Your task to perform on an android device: turn pop-ups off in chrome Image 0: 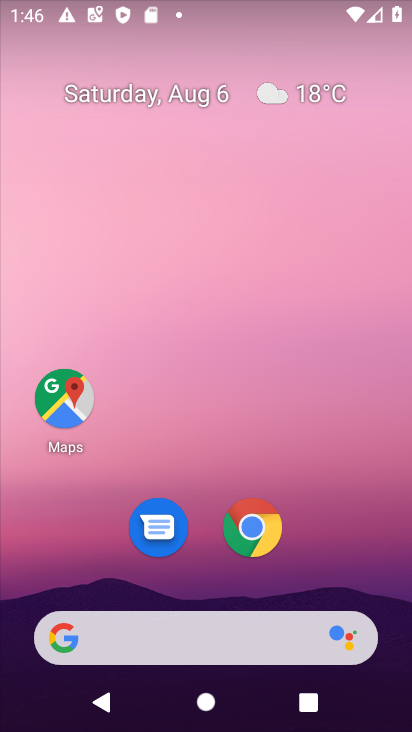
Step 0: drag from (236, 328) to (127, 89)
Your task to perform on an android device: turn pop-ups off in chrome Image 1: 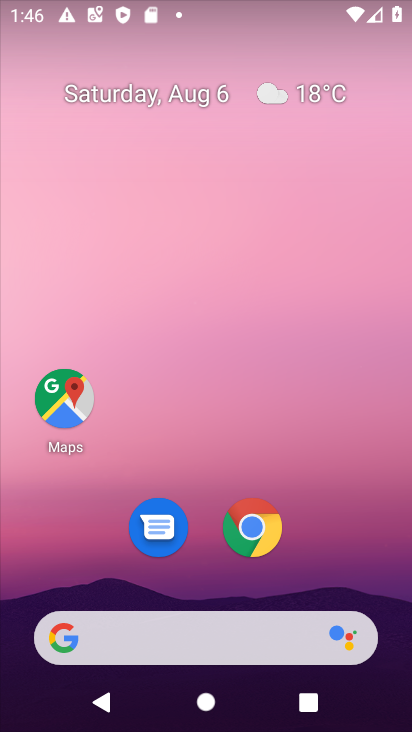
Step 1: drag from (234, 482) to (170, 5)
Your task to perform on an android device: turn pop-ups off in chrome Image 2: 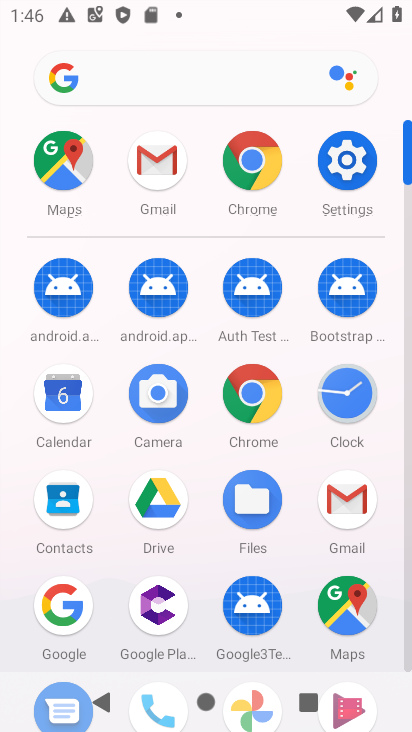
Step 2: click (266, 433)
Your task to perform on an android device: turn pop-ups off in chrome Image 3: 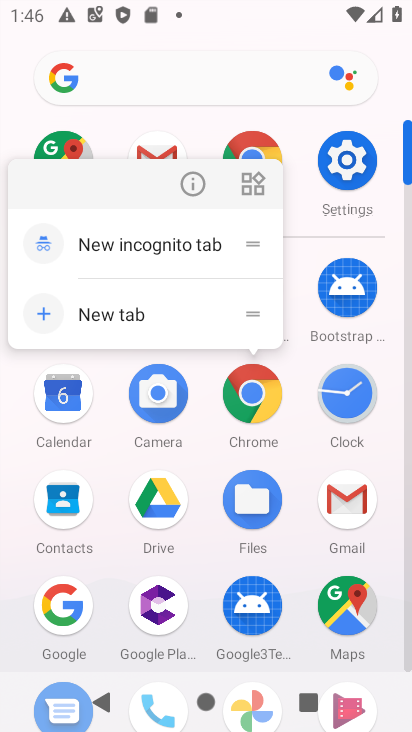
Step 3: click (266, 399)
Your task to perform on an android device: turn pop-ups off in chrome Image 4: 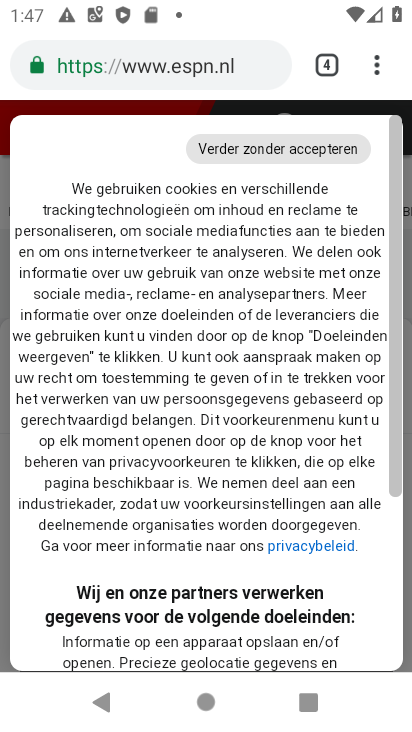
Step 4: click (380, 54)
Your task to perform on an android device: turn pop-ups off in chrome Image 5: 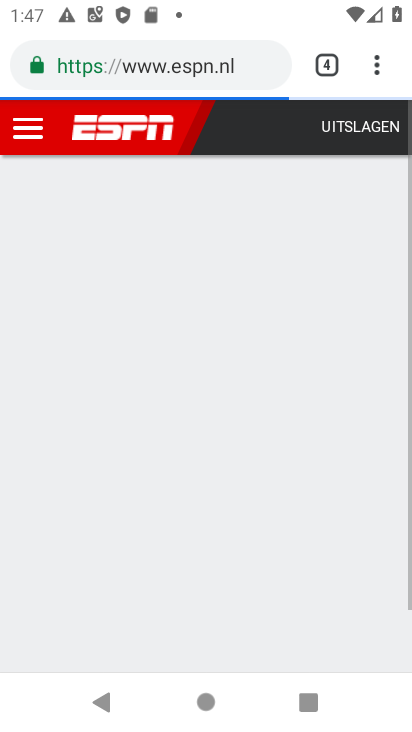
Step 5: click (370, 65)
Your task to perform on an android device: turn pop-ups off in chrome Image 6: 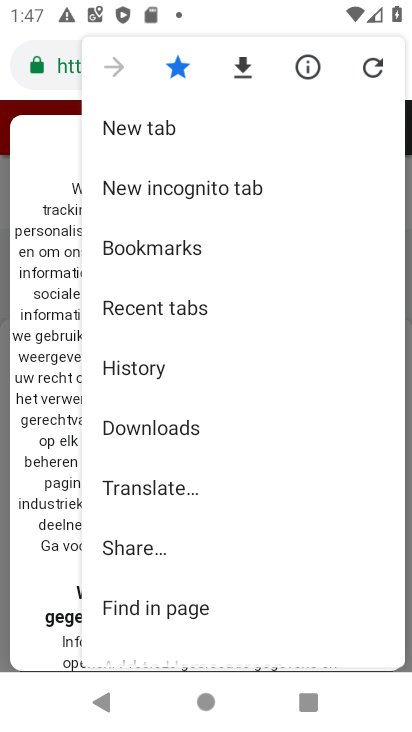
Step 6: drag from (208, 536) to (160, 81)
Your task to perform on an android device: turn pop-ups off in chrome Image 7: 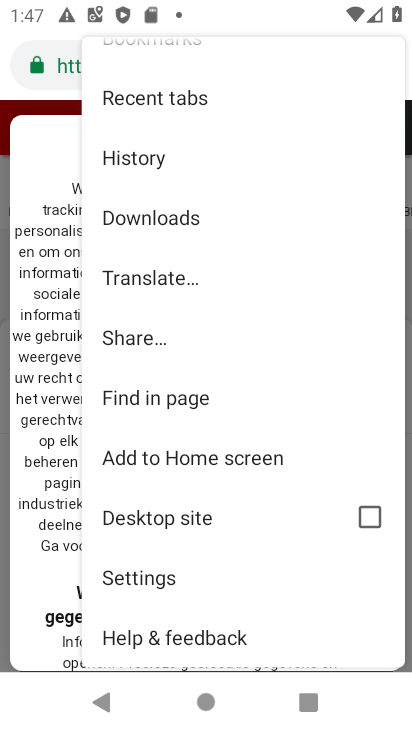
Step 7: click (181, 590)
Your task to perform on an android device: turn pop-ups off in chrome Image 8: 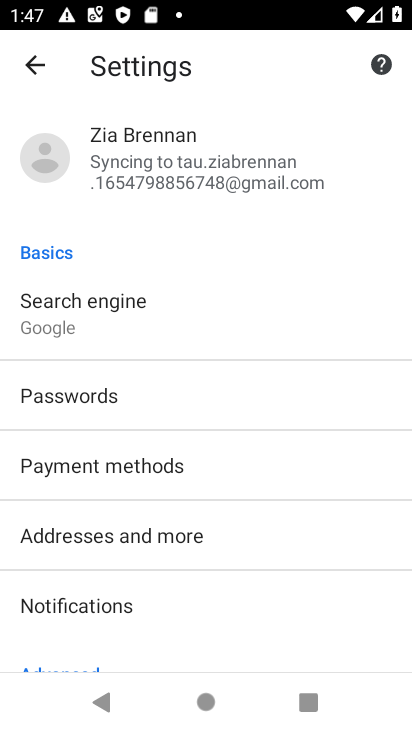
Step 8: drag from (138, 579) to (108, 195)
Your task to perform on an android device: turn pop-ups off in chrome Image 9: 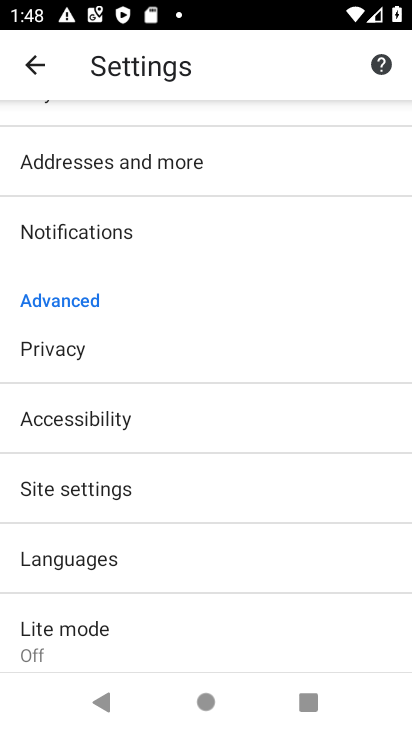
Step 9: click (134, 486)
Your task to perform on an android device: turn pop-ups off in chrome Image 10: 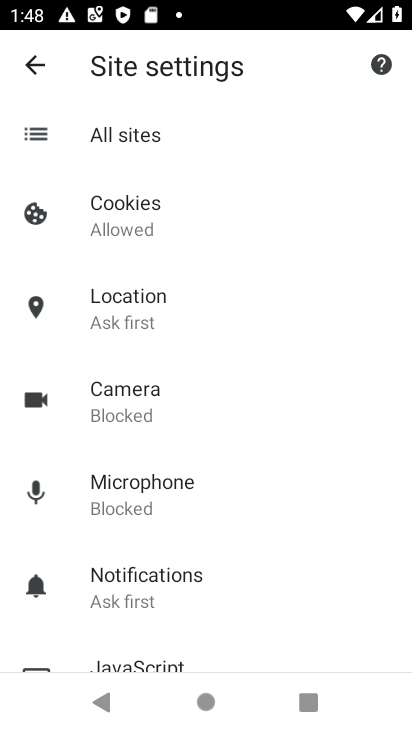
Step 10: drag from (193, 622) to (161, 234)
Your task to perform on an android device: turn pop-ups off in chrome Image 11: 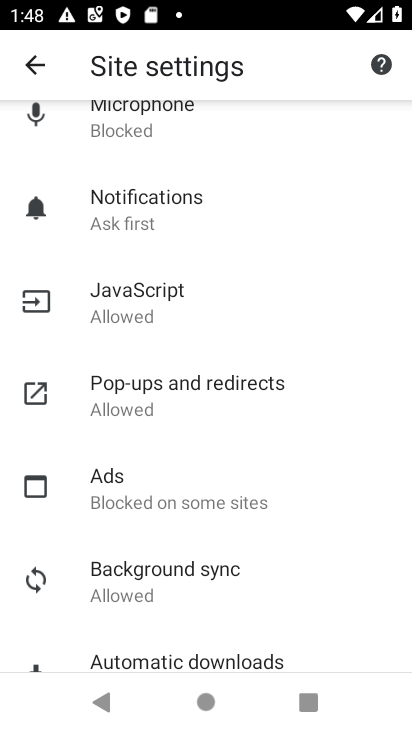
Step 11: click (202, 404)
Your task to perform on an android device: turn pop-ups off in chrome Image 12: 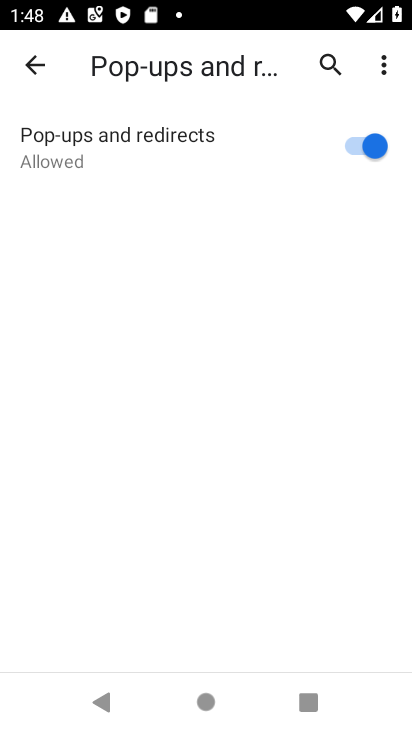
Step 12: click (374, 147)
Your task to perform on an android device: turn pop-ups off in chrome Image 13: 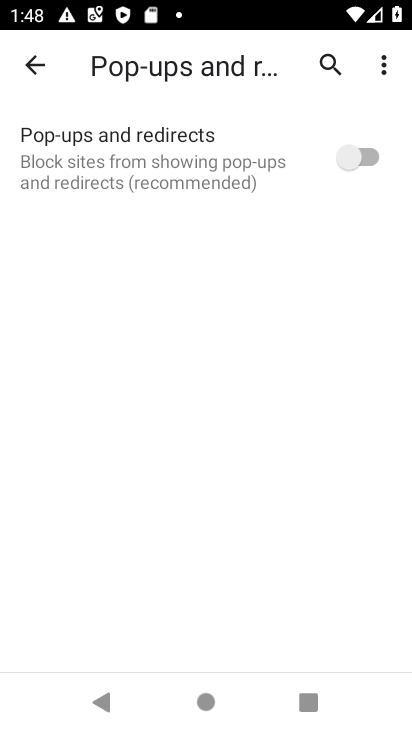
Step 13: task complete